Your task to perform on an android device: Do I have any events this weekend? Image 0: 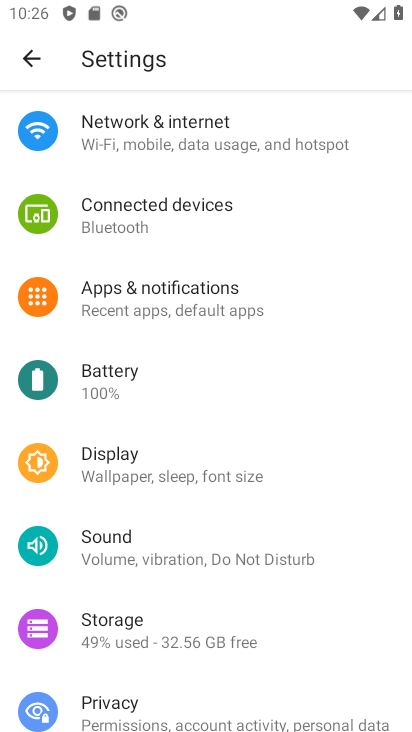
Step 0: press home button
Your task to perform on an android device: Do I have any events this weekend? Image 1: 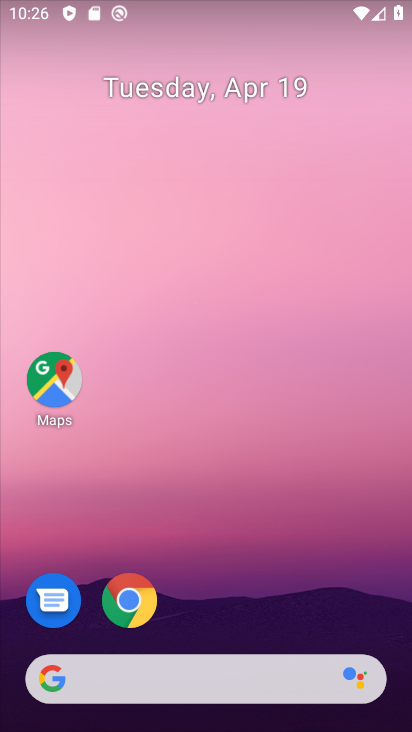
Step 1: drag from (213, 622) to (314, 34)
Your task to perform on an android device: Do I have any events this weekend? Image 2: 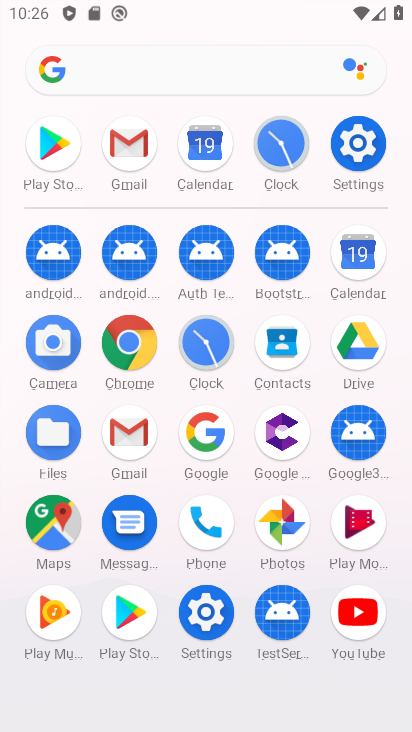
Step 2: click (356, 268)
Your task to perform on an android device: Do I have any events this weekend? Image 3: 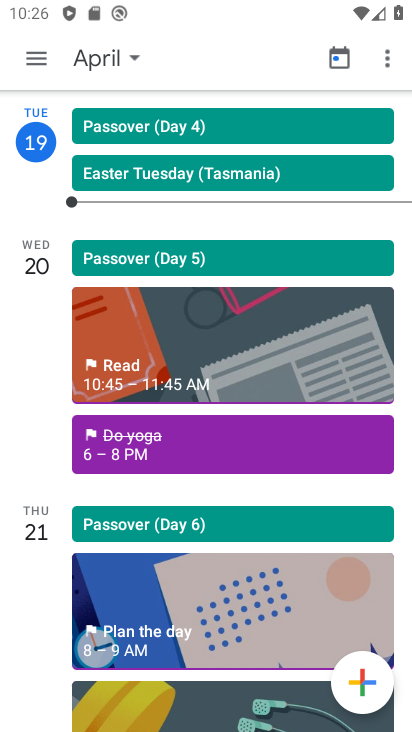
Step 3: click (40, 68)
Your task to perform on an android device: Do I have any events this weekend? Image 4: 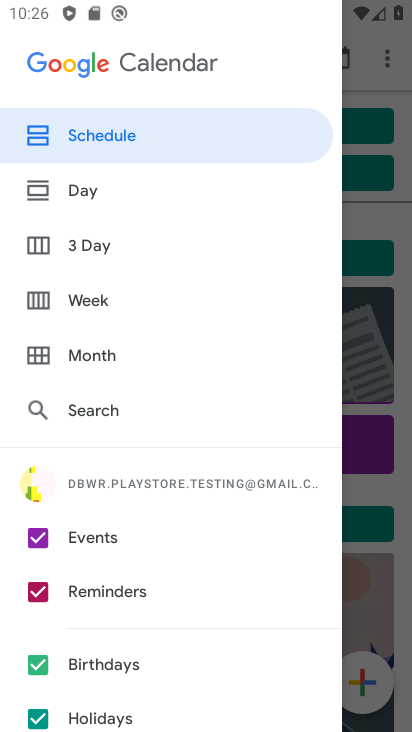
Step 4: click (37, 594)
Your task to perform on an android device: Do I have any events this weekend? Image 5: 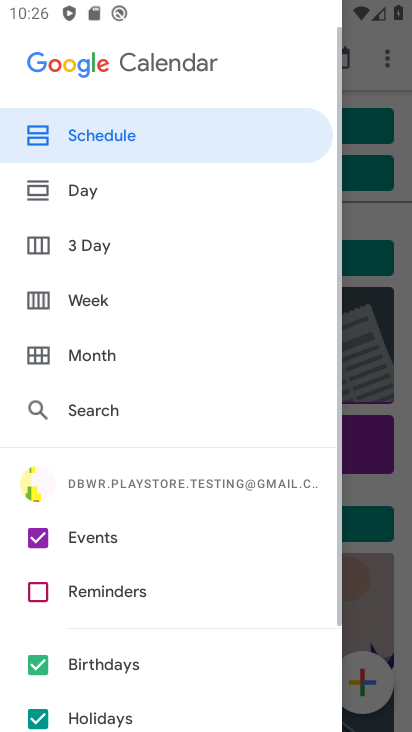
Step 5: click (54, 661)
Your task to perform on an android device: Do I have any events this weekend? Image 6: 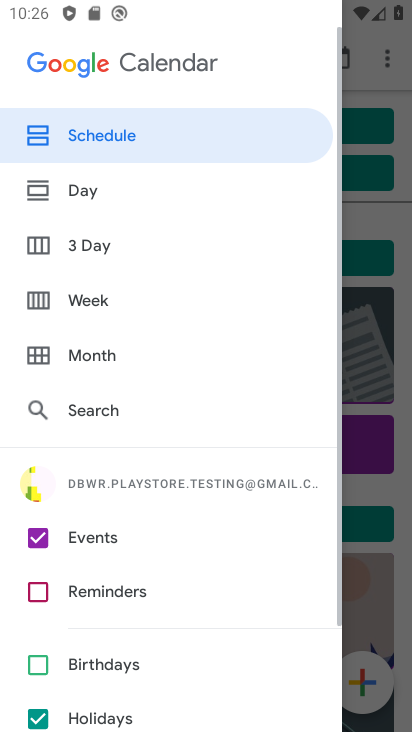
Step 6: drag from (162, 646) to (237, 315)
Your task to perform on an android device: Do I have any events this weekend? Image 7: 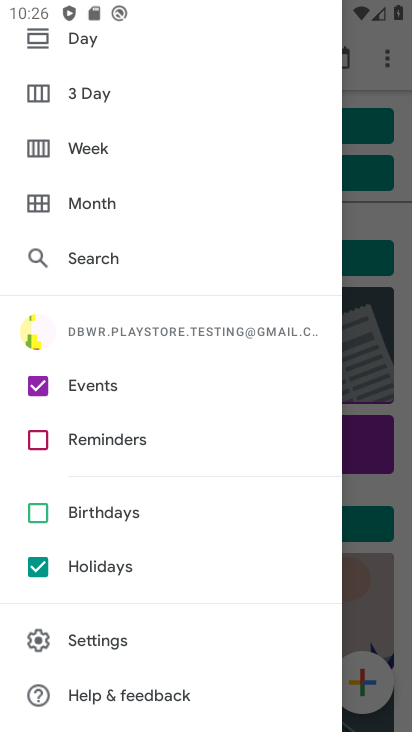
Step 7: click (36, 563)
Your task to perform on an android device: Do I have any events this weekend? Image 8: 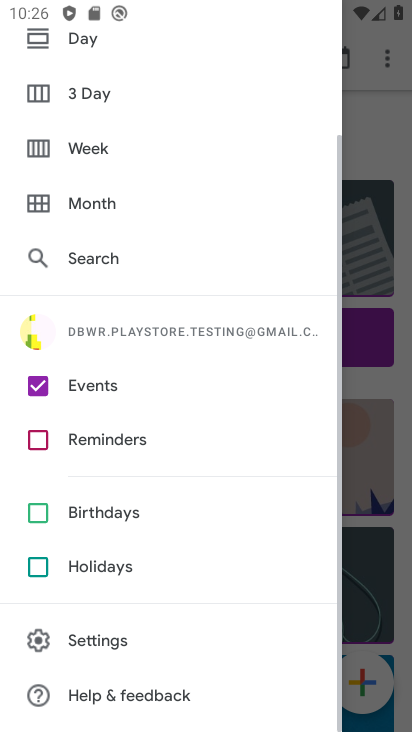
Step 8: drag from (210, 288) to (167, 571)
Your task to perform on an android device: Do I have any events this weekend? Image 9: 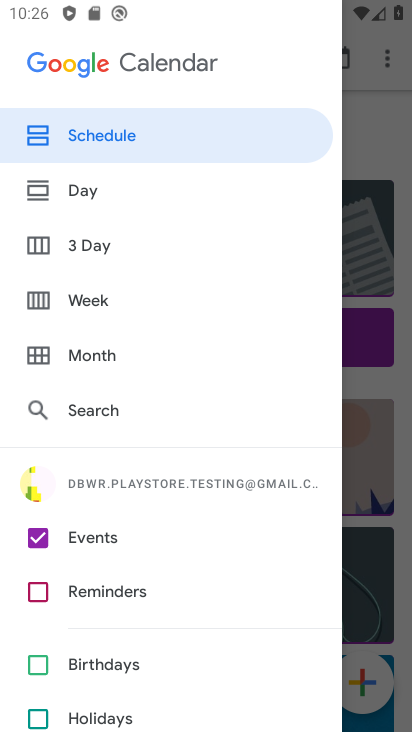
Step 9: click (93, 296)
Your task to perform on an android device: Do I have any events this weekend? Image 10: 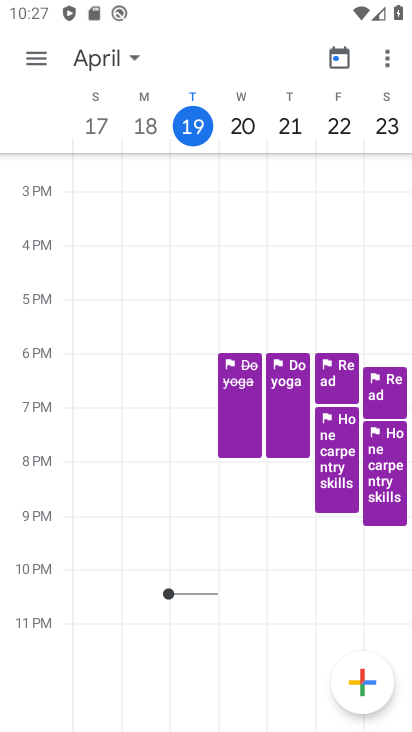
Step 10: task complete